Your task to perform on an android device: turn off smart reply in the gmail app Image 0: 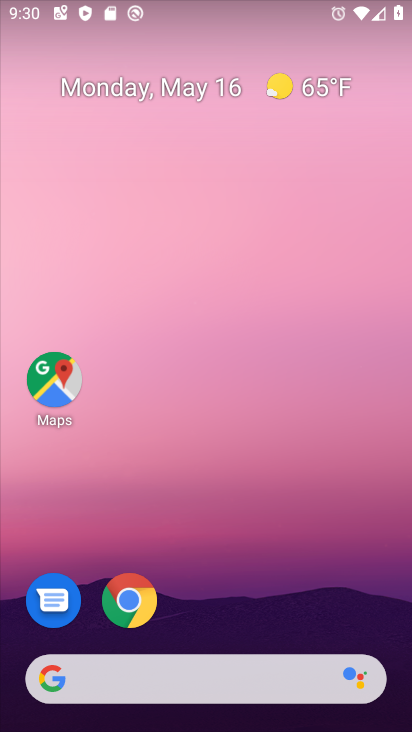
Step 0: drag from (195, 636) to (308, 136)
Your task to perform on an android device: turn off smart reply in the gmail app Image 1: 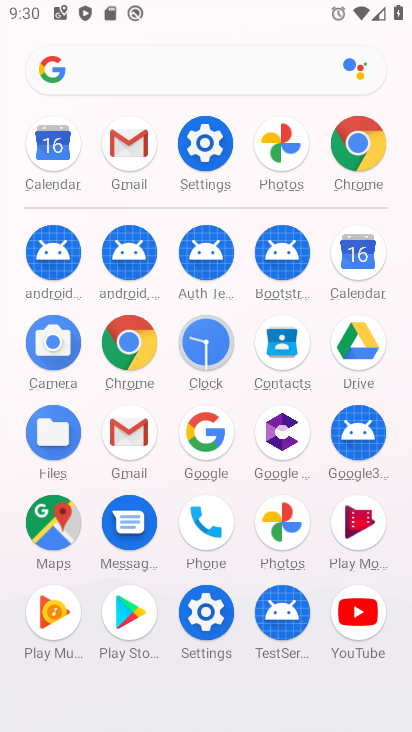
Step 1: click (138, 433)
Your task to perform on an android device: turn off smart reply in the gmail app Image 2: 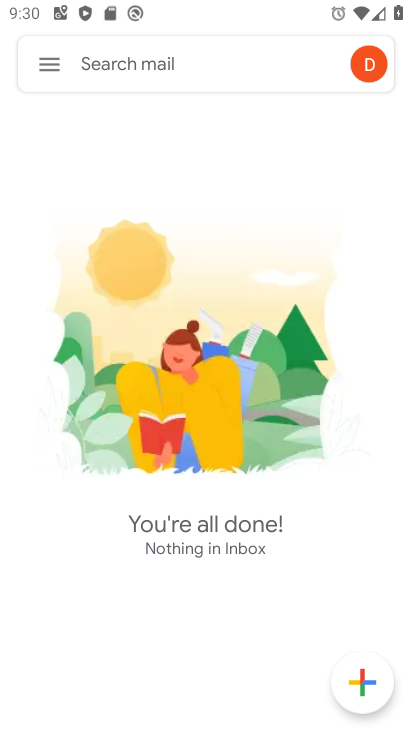
Step 2: click (46, 61)
Your task to perform on an android device: turn off smart reply in the gmail app Image 3: 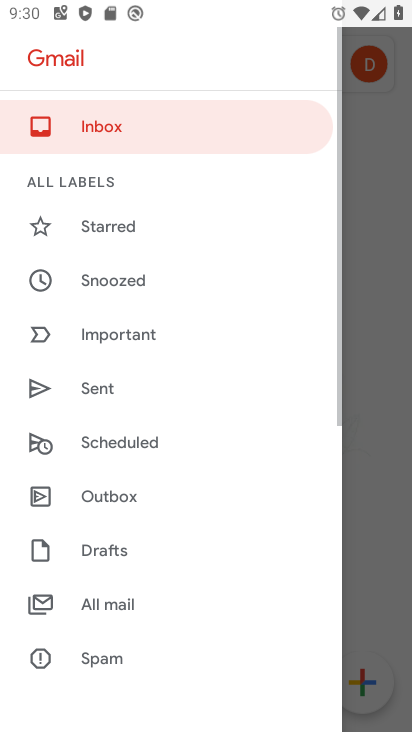
Step 3: drag from (102, 612) to (214, 108)
Your task to perform on an android device: turn off smart reply in the gmail app Image 4: 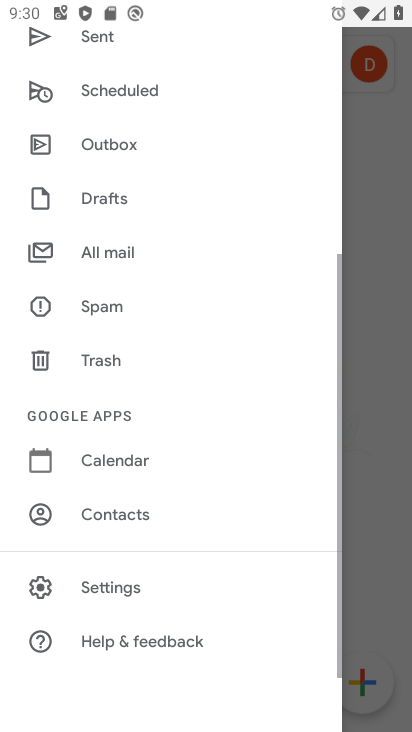
Step 4: click (153, 573)
Your task to perform on an android device: turn off smart reply in the gmail app Image 5: 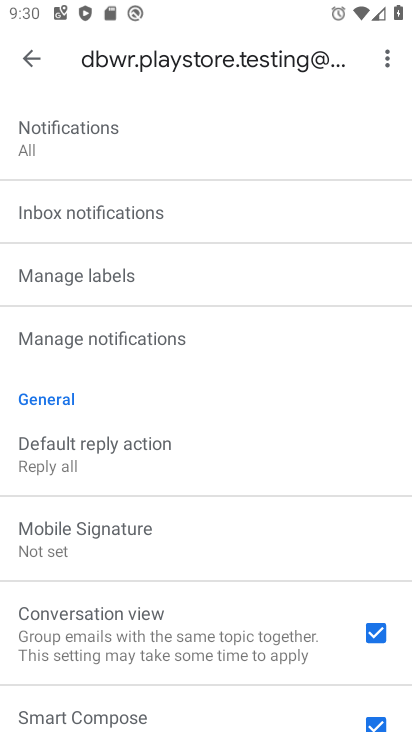
Step 5: click (255, 74)
Your task to perform on an android device: turn off smart reply in the gmail app Image 6: 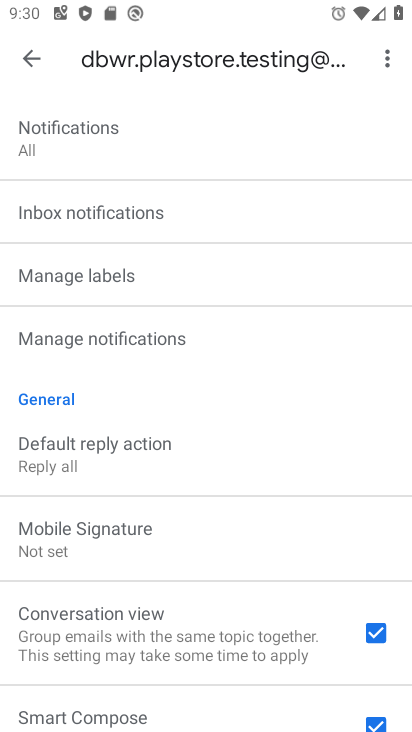
Step 6: task complete